Your task to perform on an android device: delete the emails in spam in the gmail app Image 0: 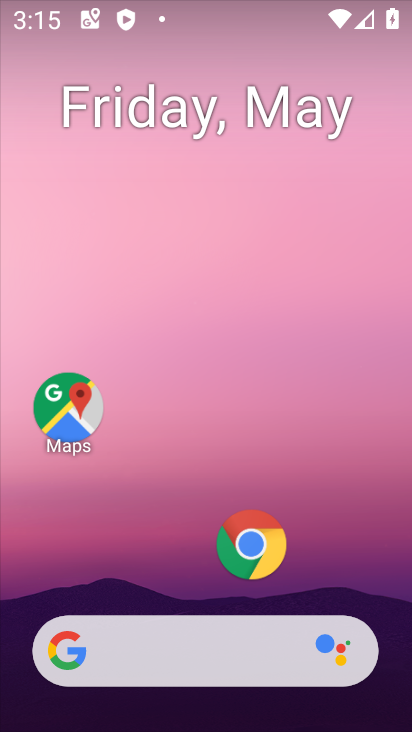
Step 0: drag from (202, 598) to (206, 371)
Your task to perform on an android device: delete the emails in spam in the gmail app Image 1: 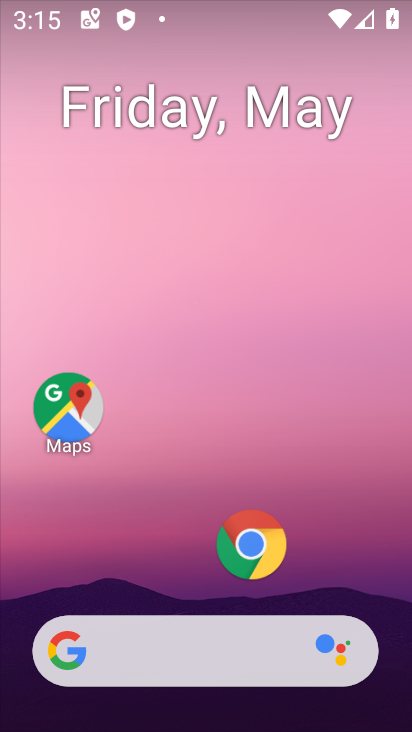
Step 1: drag from (198, 586) to (199, 244)
Your task to perform on an android device: delete the emails in spam in the gmail app Image 2: 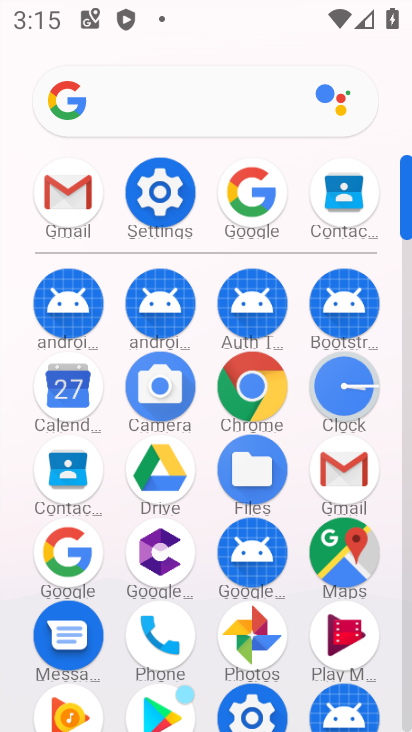
Step 2: click (65, 192)
Your task to perform on an android device: delete the emails in spam in the gmail app Image 3: 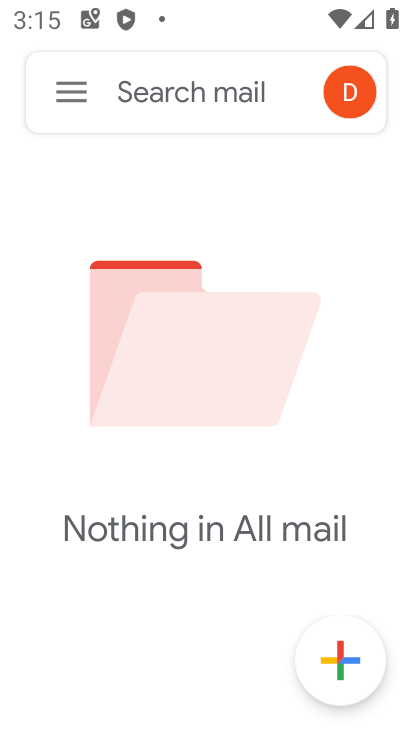
Step 3: click (62, 94)
Your task to perform on an android device: delete the emails in spam in the gmail app Image 4: 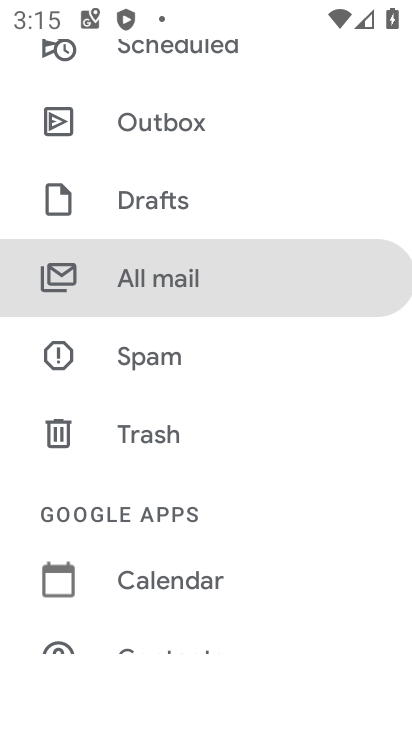
Step 4: click (154, 294)
Your task to perform on an android device: delete the emails in spam in the gmail app Image 5: 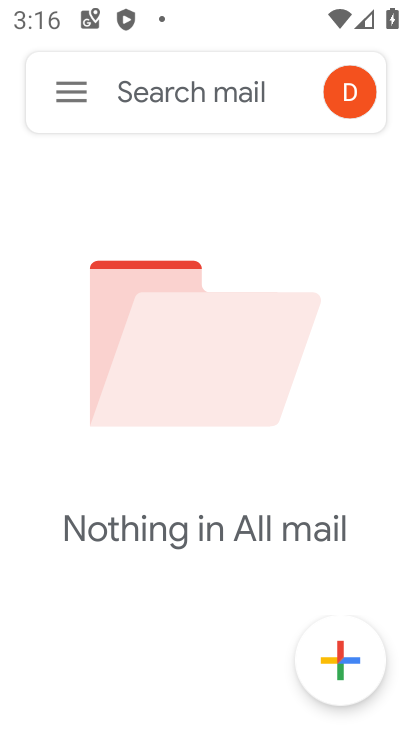
Step 5: task complete